Your task to perform on an android device: add a contact in the contacts app Image 0: 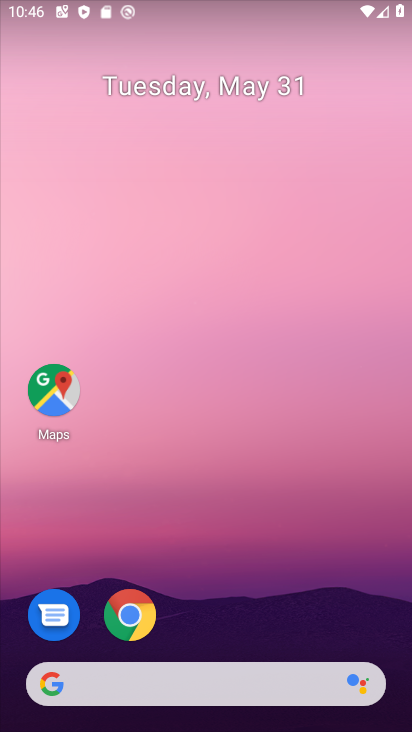
Step 0: task complete